Your task to perform on an android device: Go to Maps Image 0: 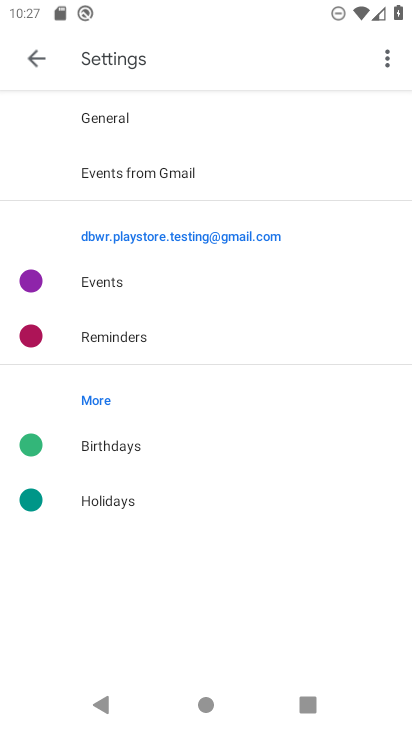
Step 0: press home button
Your task to perform on an android device: Go to Maps Image 1: 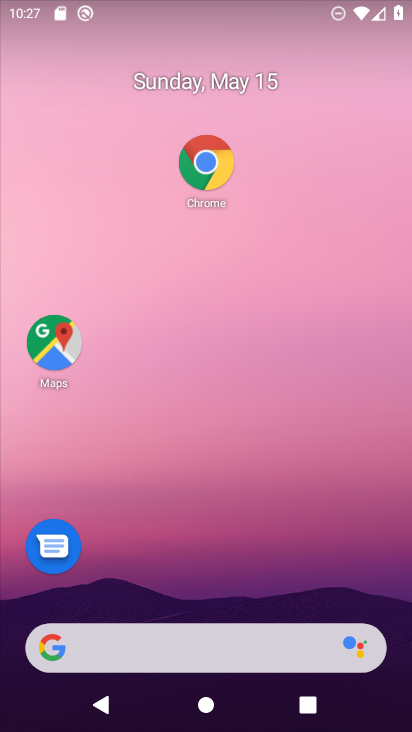
Step 1: drag from (283, 595) to (336, 178)
Your task to perform on an android device: Go to Maps Image 2: 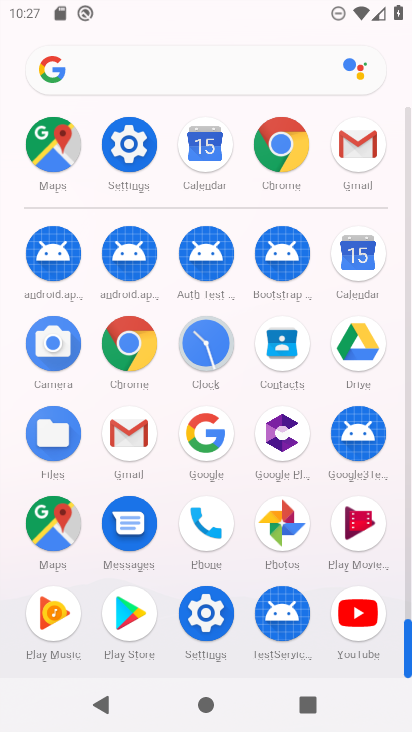
Step 2: click (52, 526)
Your task to perform on an android device: Go to Maps Image 3: 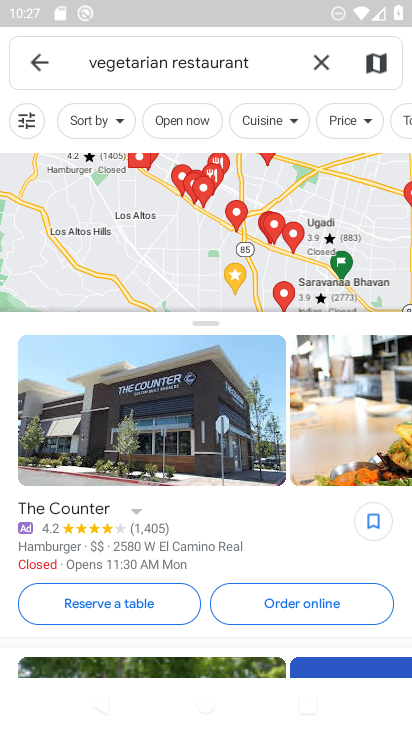
Step 3: task complete